Your task to perform on an android device: Open notification settings Image 0: 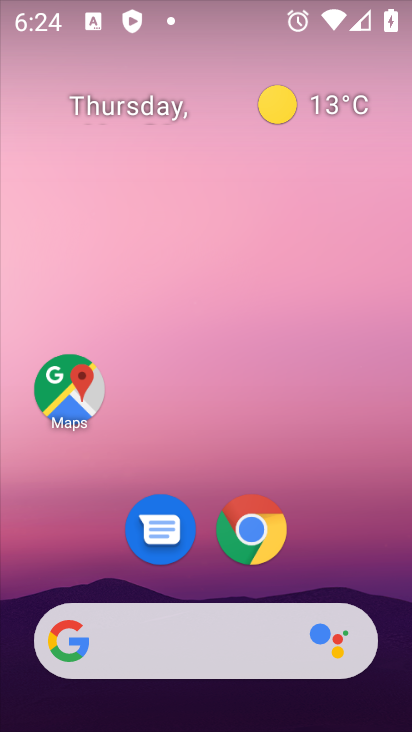
Step 0: drag from (261, 670) to (262, 10)
Your task to perform on an android device: Open notification settings Image 1: 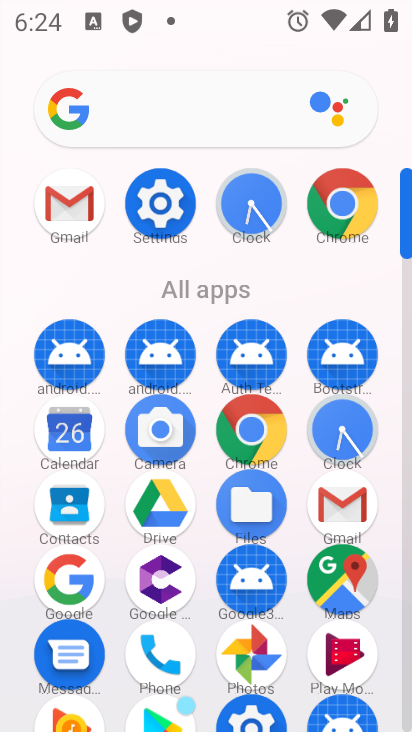
Step 1: click (158, 198)
Your task to perform on an android device: Open notification settings Image 2: 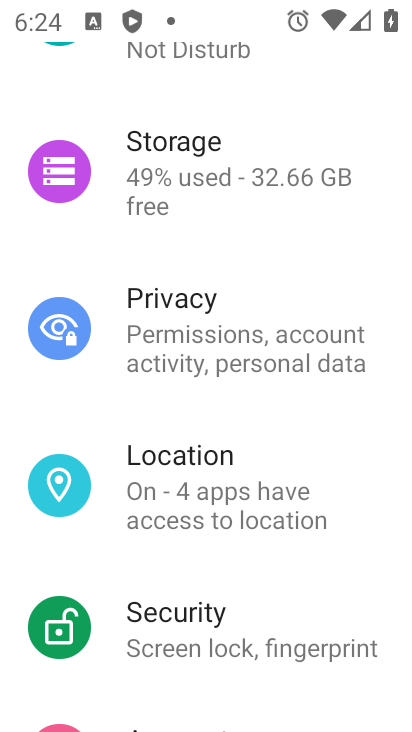
Step 2: drag from (208, 636) to (231, 722)
Your task to perform on an android device: Open notification settings Image 3: 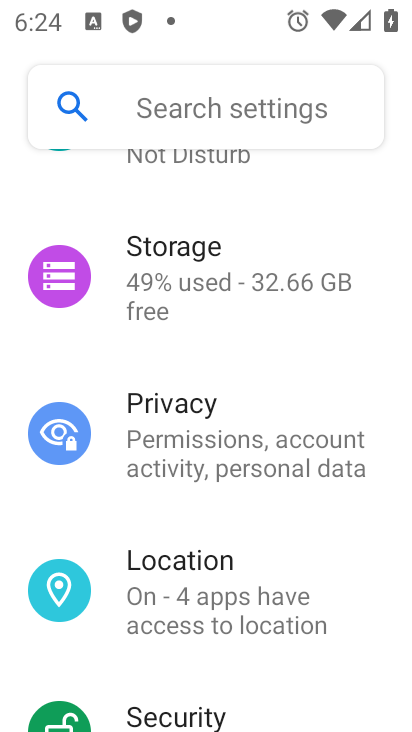
Step 3: drag from (314, 251) to (227, 731)
Your task to perform on an android device: Open notification settings Image 4: 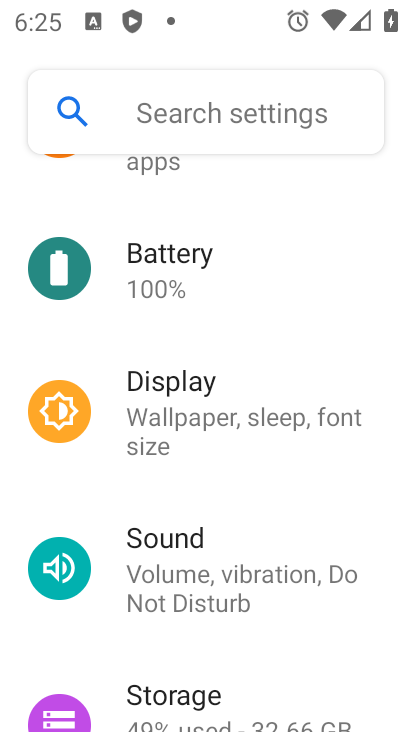
Step 4: drag from (297, 261) to (250, 729)
Your task to perform on an android device: Open notification settings Image 5: 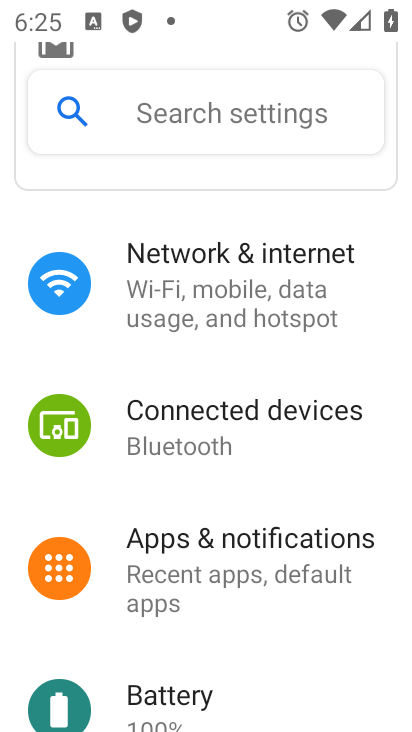
Step 5: click (266, 558)
Your task to perform on an android device: Open notification settings Image 6: 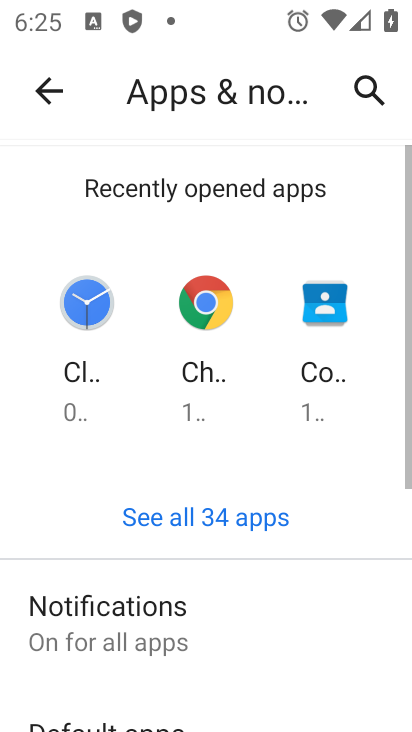
Step 6: drag from (264, 647) to (231, 160)
Your task to perform on an android device: Open notification settings Image 7: 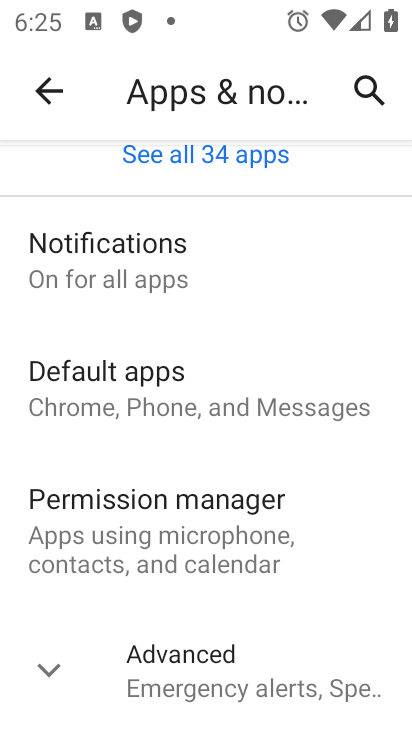
Step 7: click (180, 275)
Your task to perform on an android device: Open notification settings Image 8: 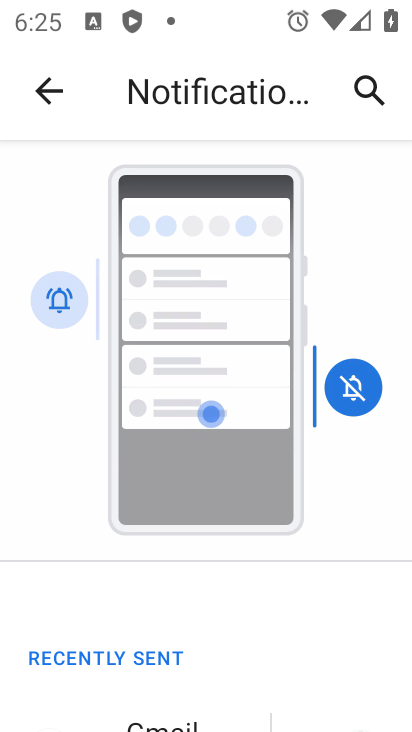
Step 8: task complete